Your task to perform on an android device: Go to Wikipedia Image 0: 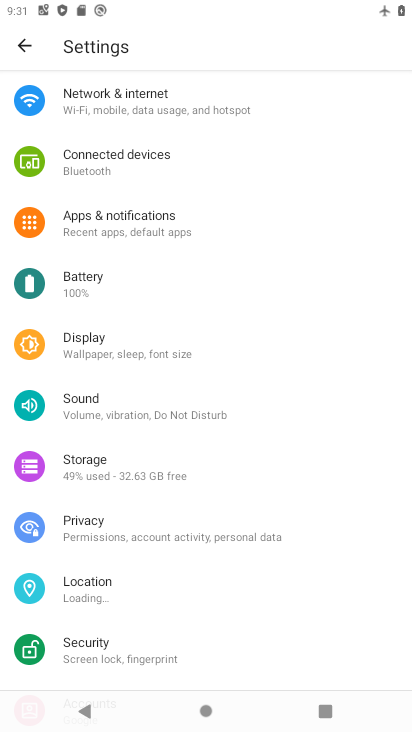
Step 0: press home button
Your task to perform on an android device: Go to Wikipedia Image 1: 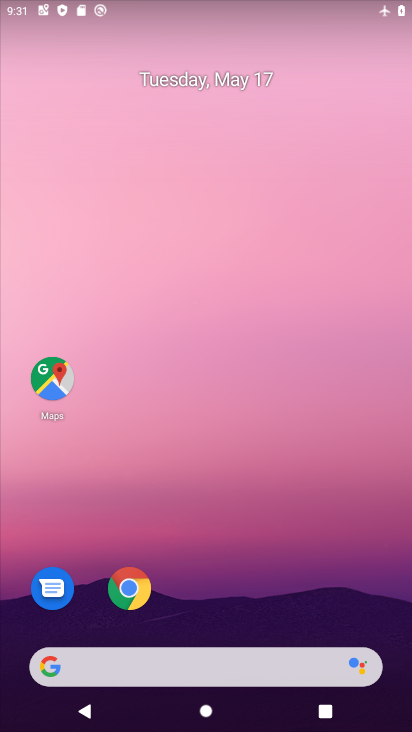
Step 1: click (124, 600)
Your task to perform on an android device: Go to Wikipedia Image 2: 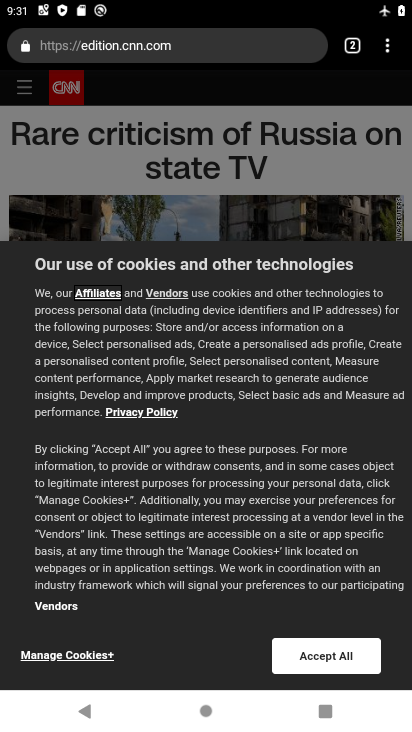
Step 2: click (356, 52)
Your task to perform on an android device: Go to Wikipedia Image 3: 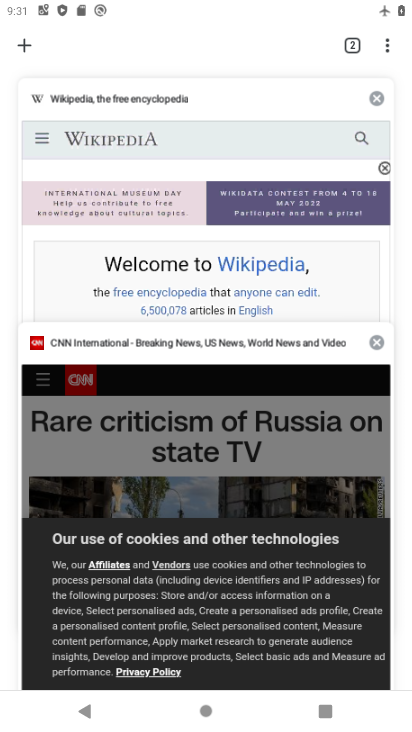
Step 3: click (23, 44)
Your task to perform on an android device: Go to Wikipedia Image 4: 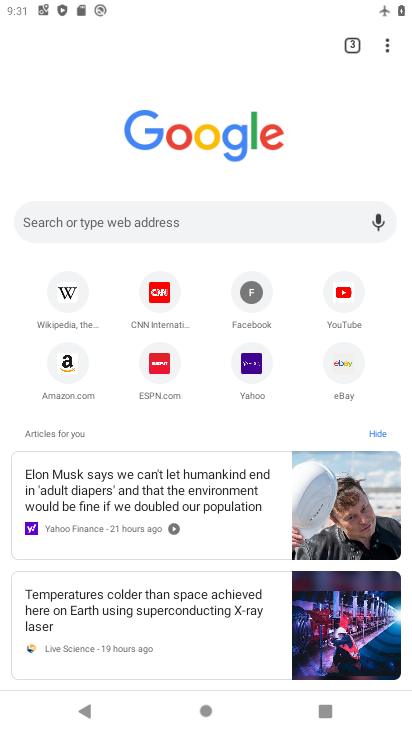
Step 4: click (68, 305)
Your task to perform on an android device: Go to Wikipedia Image 5: 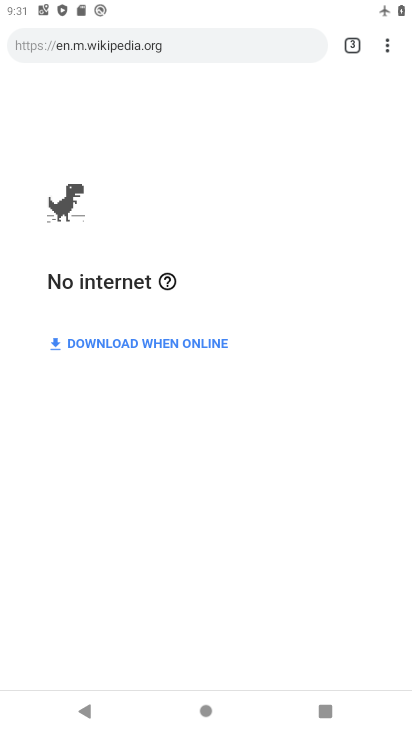
Step 5: task complete